Your task to perform on an android device: change the clock display to show seconds Image 0: 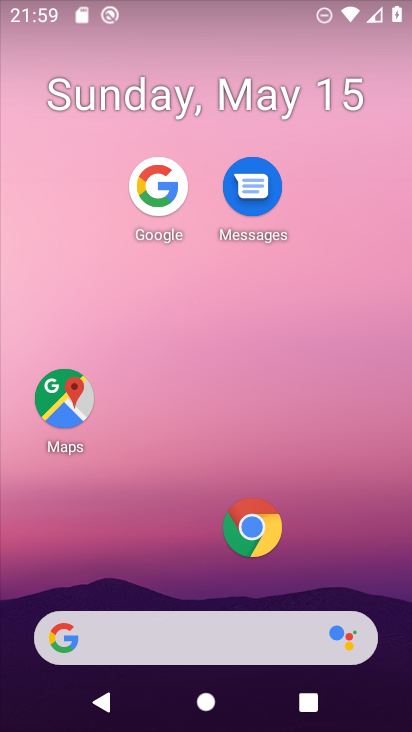
Step 0: press home button
Your task to perform on an android device: change the clock display to show seconds Image 1: 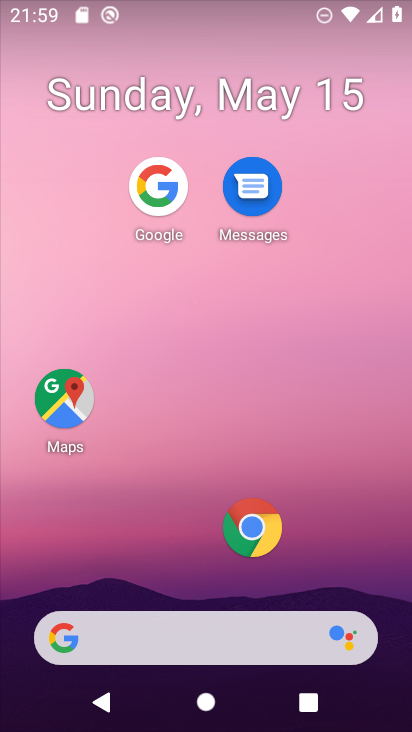
Step 1: drag from (162, 648) to (288, 275)
Your task to perform on an android device: change the clock display to show seconds Image 2: 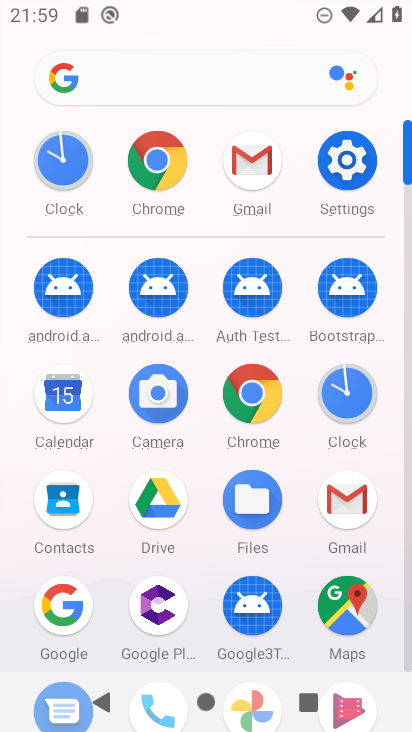
Step 2: click (349, 401)
Your task to perform on an android device: change the clock display to show seconds Image 3: 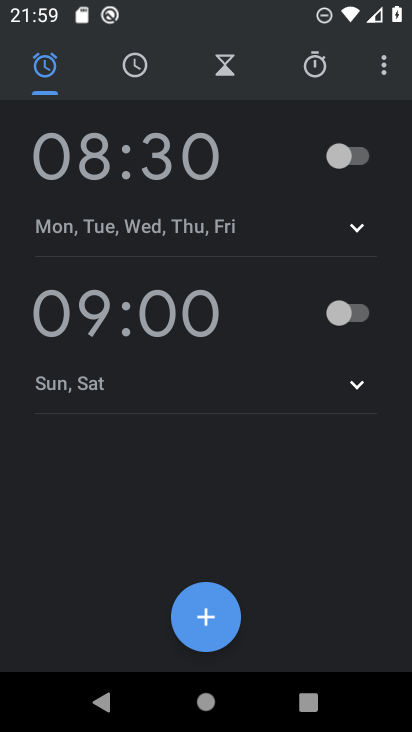
Step 3: click (386, 71)
Your task to perform on an android device: change the clock display to show seconds Image 4: 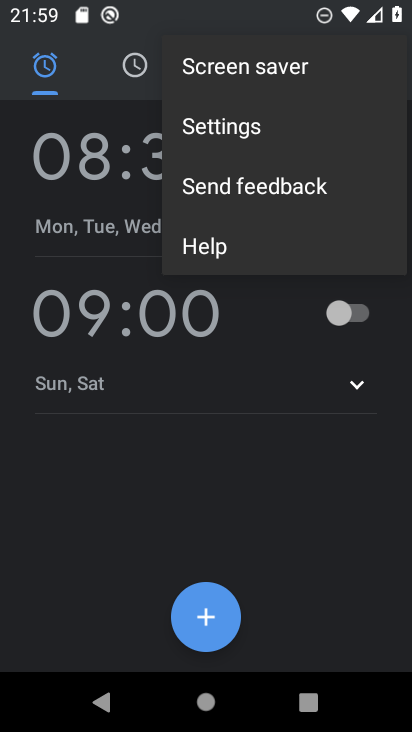
Step 4: click (260, 129)
Your task to perform on an android device: change the clock display to show seconds Image 5: 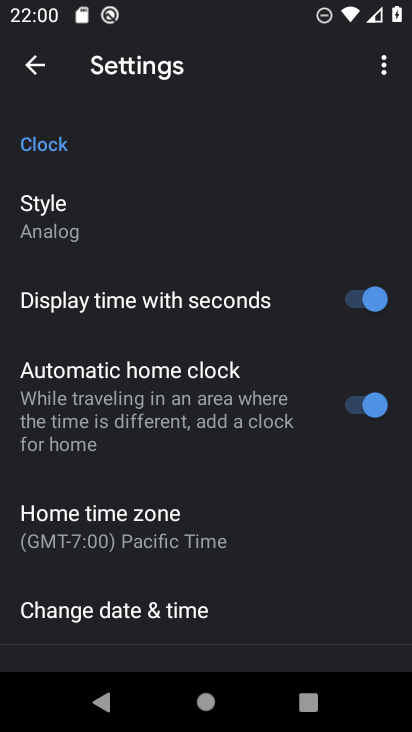
Step 5: task complete